Your task to perform on an android device: turn on showing notifications on the lock screen Image 0: 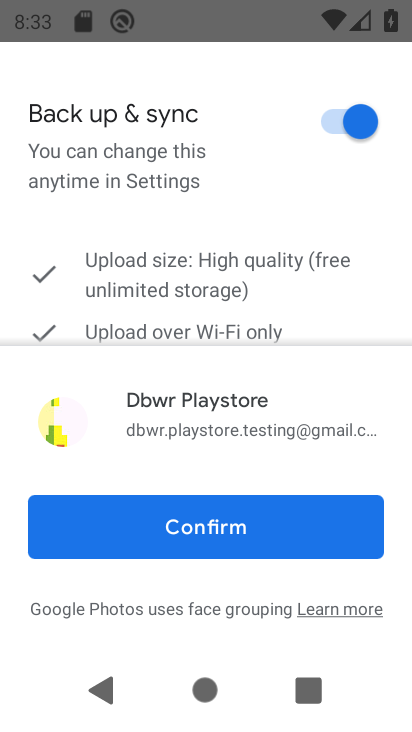
Step 0: press home button
Your task to perform on an android device: turn on showing notifications on the lock screen Image 1: 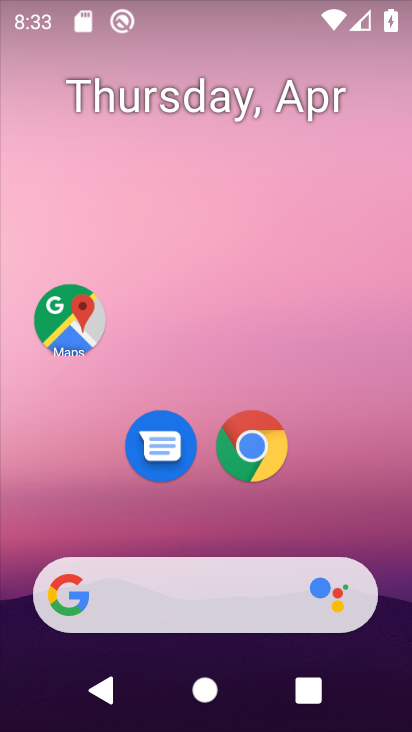
Step 1: drag from (335, 496) to (335, 95)
Your task to perform on an android device: turn on showing notifications on the lock screen Image 2: 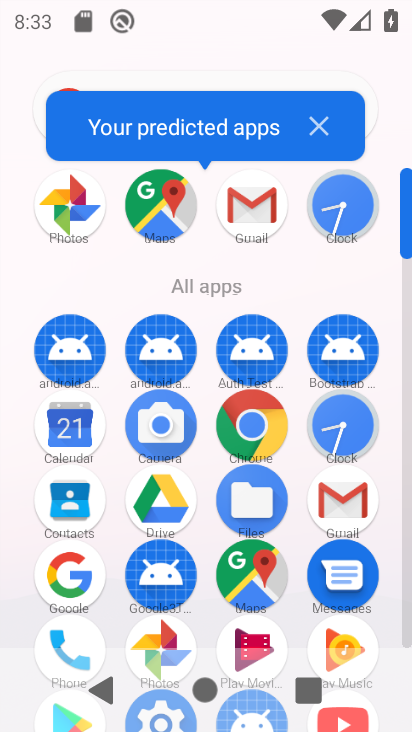
Step 2: drag from (391, 524) to (394, 255)
Your task to perform on an android device: turn on showing notifications on the lock screen Image 3: 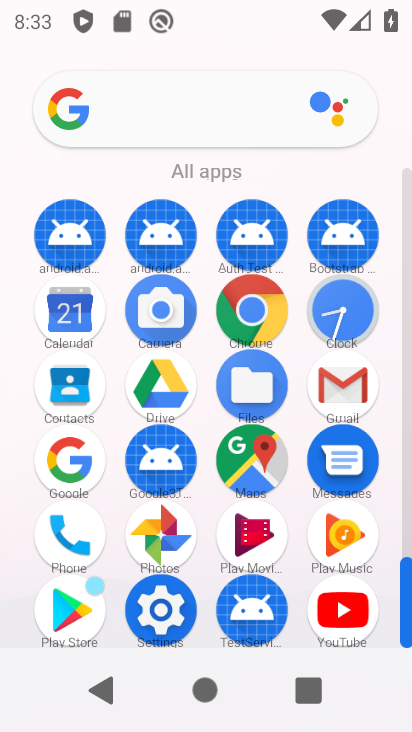
Step 3: click (155, 614)
Your task to perform on an android device: turn on showing notifications on the lock screen Image 4: 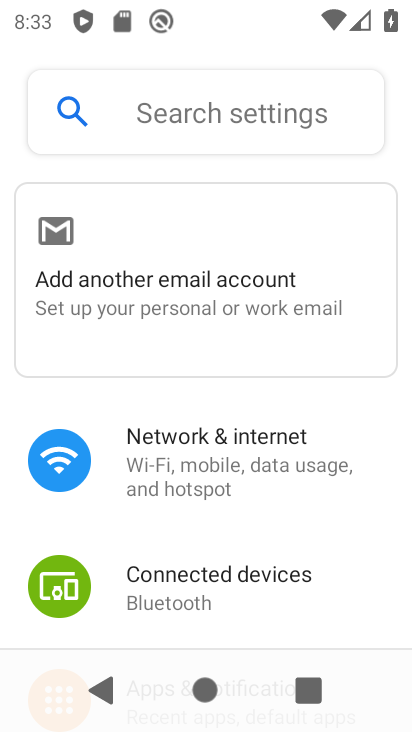
Step 4: drag from (339, 592) to (334, 376)
Your task to perform on an android device: turn on showing notifications on the lock screen Image 5: 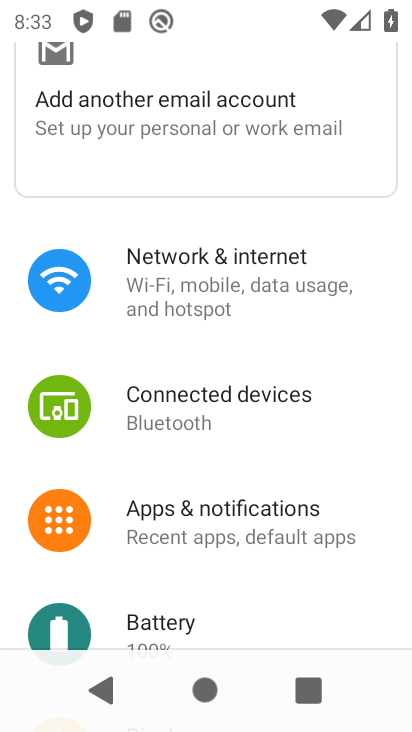
Step 5: drag from (357, 597) to (365, 321)
Your task to perform on an android device: turn on showing notifications on the lock screen Image 6: 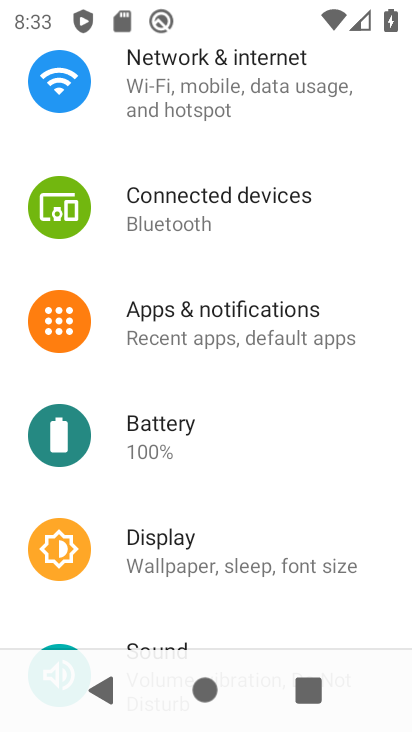
Step 6: drag from (346, 605) to (351, 437)
Your task to perform on an android device: turn on showing notifications on the lock screen Image 7: 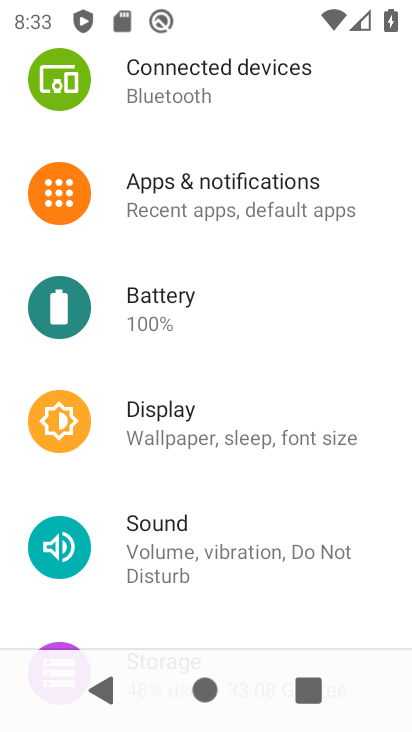
Step 7: click (250, 205)
Your task to perform on an android device: turn on showing notifications on the lock screen Image 8: 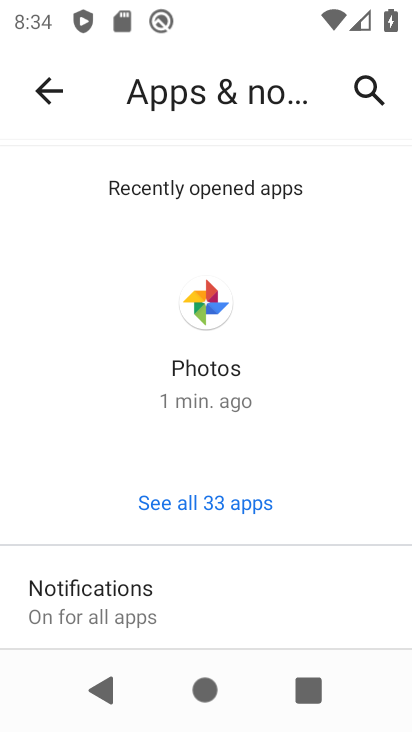
Step 8: drag from (326, 574) to (334, 309)
Your task to perform on an android device: turn on showing notifications on the lock screen Image 9: 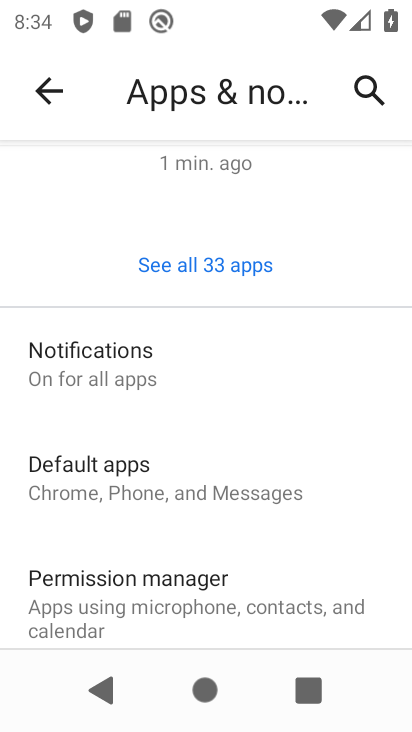
Step 9: click (123, 356)
Your task to perform on an android device: turn on showing notifications on the lock screen Image 10: 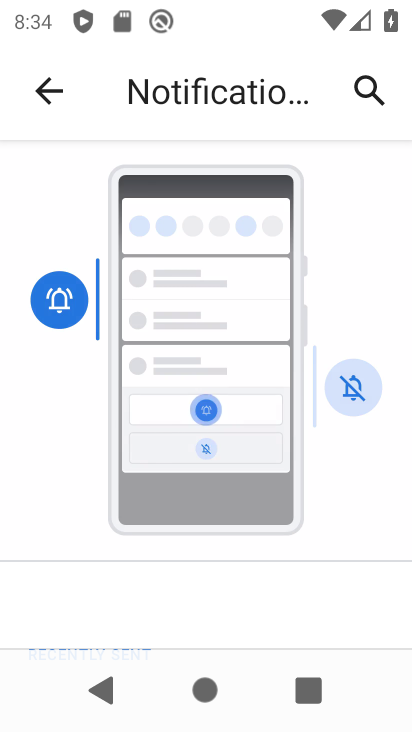
Step 10: drag from (324, 543) to (311, 230)
Your task to perform on an android device: turn on showing notifications on the lock screen Image 11: 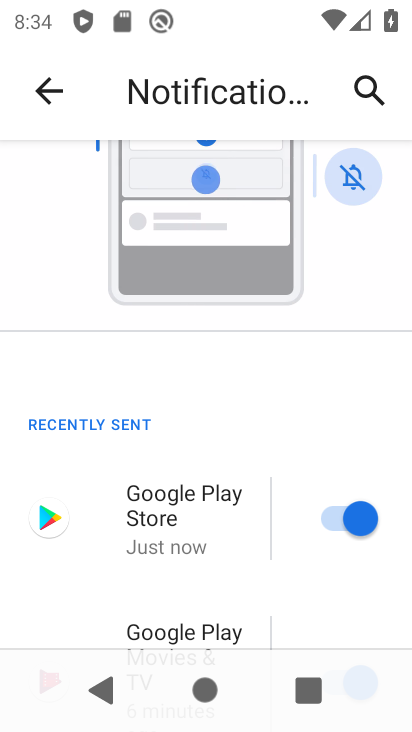
Step 11: drag from (241, 556) to (262, 350)
Your task to perform on an android device: turn on showing notifications on the lock screen Image 12: 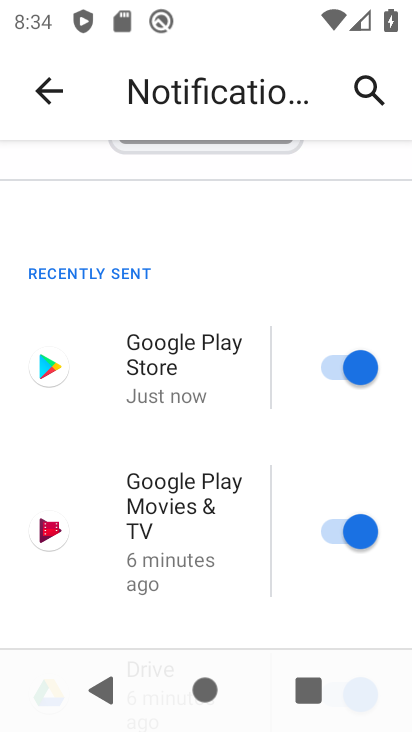
Step 12: drag from (292, 539) to (291, 259)
Your task to perform on an android device: turn on showing notifications on the lock screen Image 13: 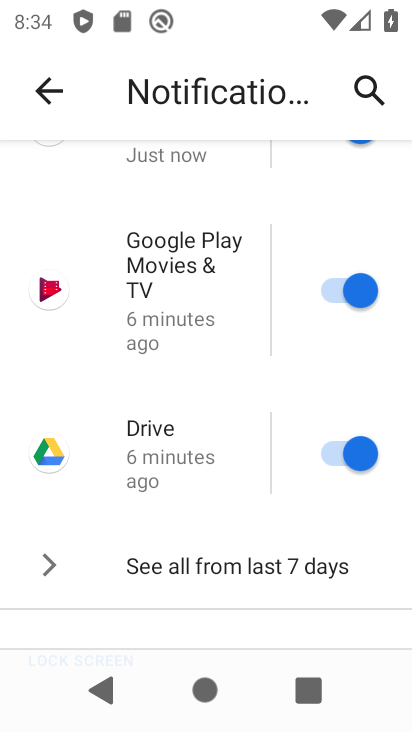
Step 13: drag from (255, 575) to (256, 282)
Your task to perform on an android device: turn on showing notifications on the lock screen Image 14: 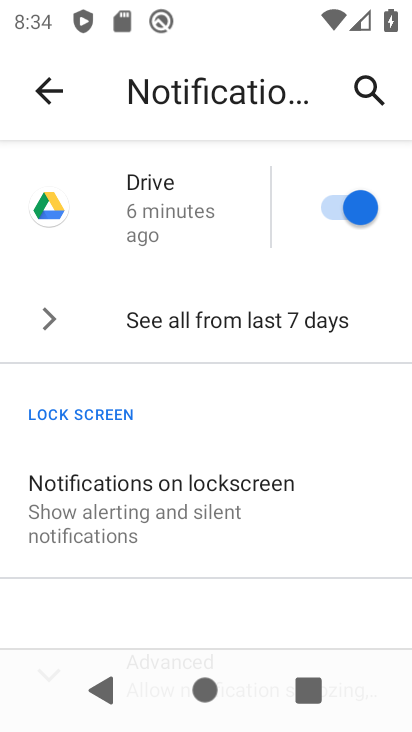
Step 14: click (200, 481)
Your task to perform on an android device: turn on showing notifications on the lock screen Image 15: 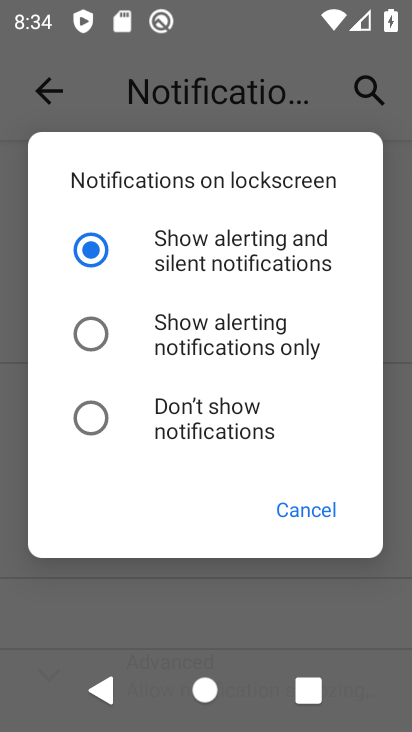
Step 15: task complete